Your task to perform on an android device: Show me recent news Image 0: 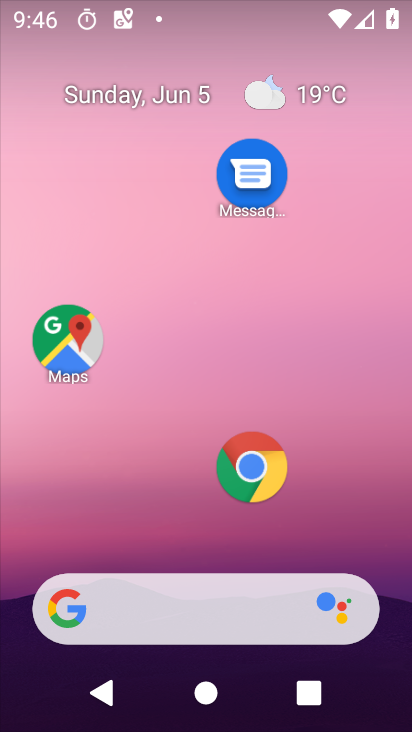
Step 0: drag from (207, 523) to (167, 64)
Your task to perform on an android device: Show me recent news Image 1: 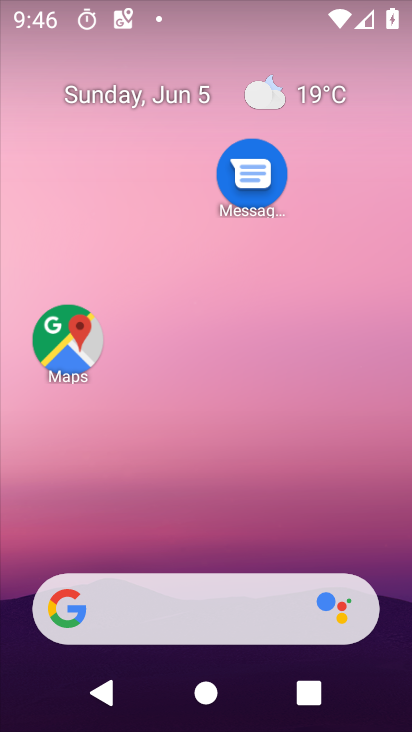
Step 1: drag from (217, 479) to (225, 142)
Your task to perform on an android device: Show me recent news Image 2: 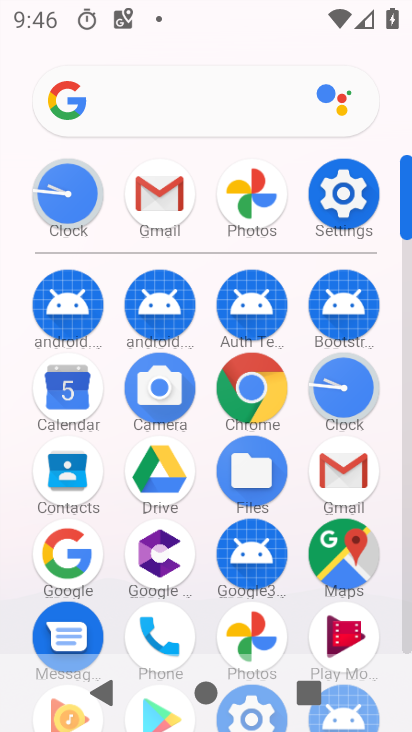
Step 2: click (143, 108)
Your task to perform on an android device: Show me recent news Image 3: 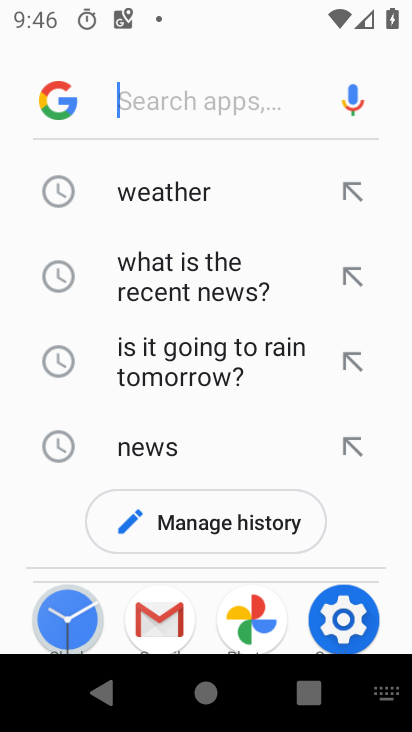
Step 3: type "recent news"
Your task to perform on an android device: Show me recent news Image 4: 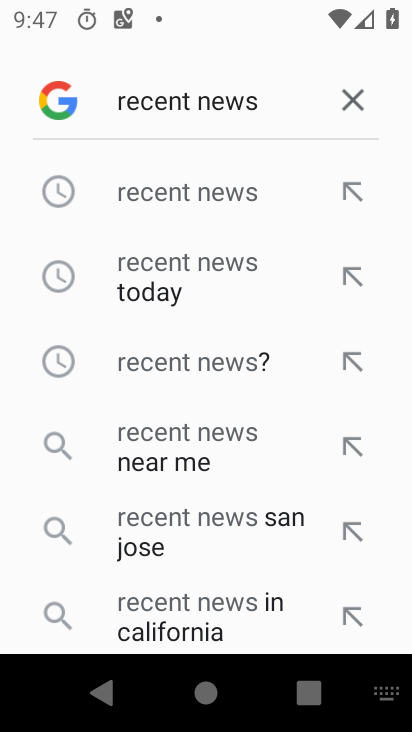
Step 4: click (203, 189)
Your task to perform on an android device: Show me recent news Image 5: 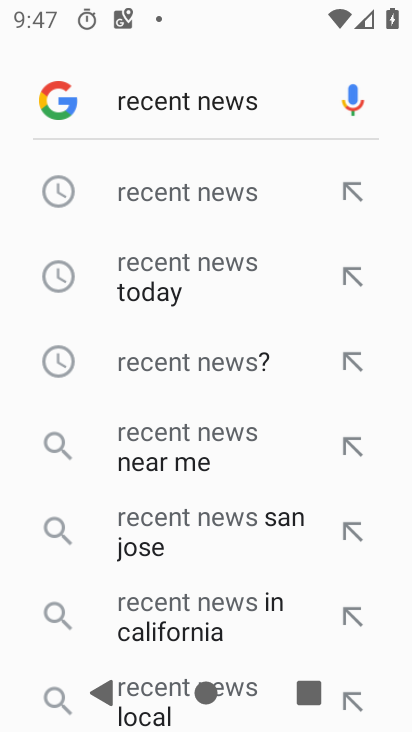
Step 5: task complete